Your task to perform on an android device: Clear the shopping cart on walmart.com. Search for "jbl flip 4" on walmart.com, select the first entry, and add it to the cart. Image 0: 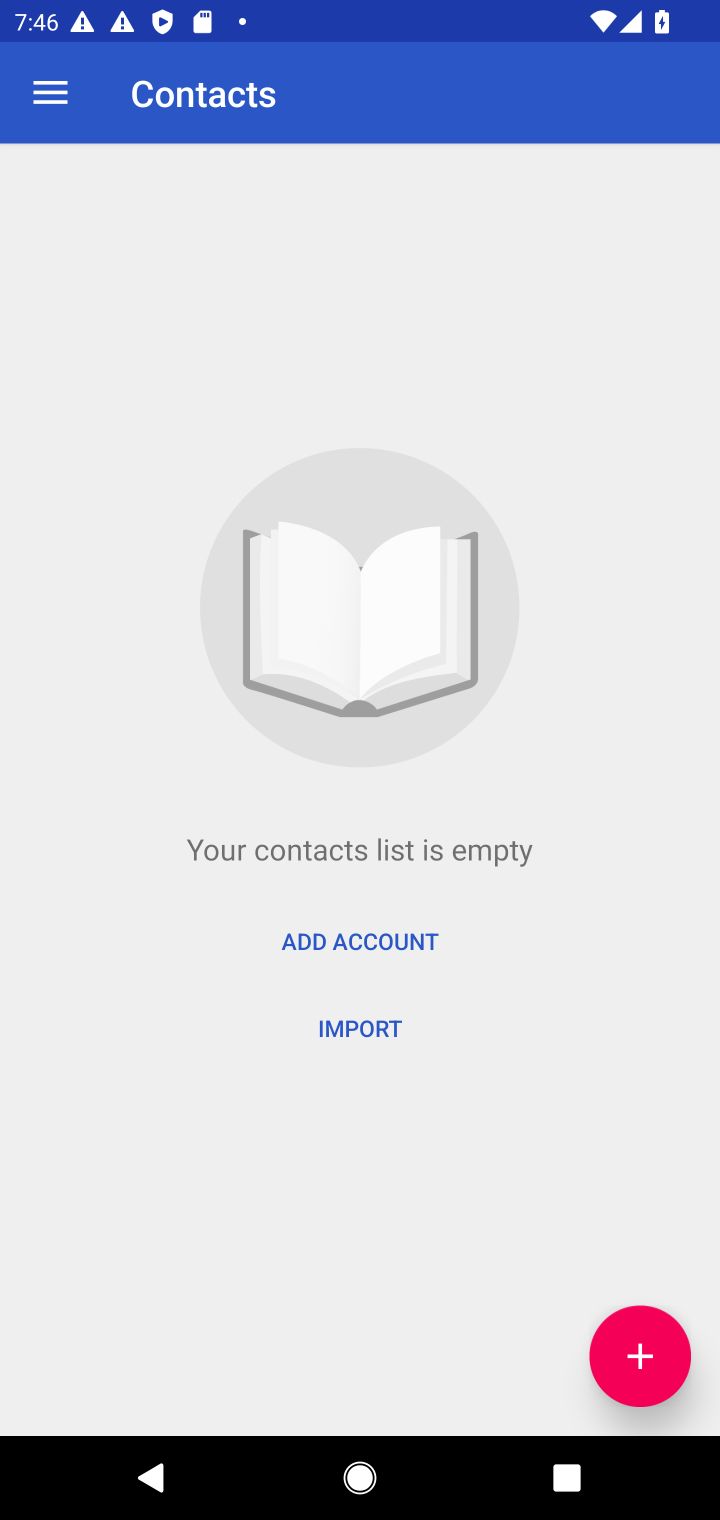
Step 0: press home button
Your task to perform on an android device: Clear the shopping cart on walmart.com. Search for "jbl flip 4" on walmart.com, select the first entry, and add it to the cart. Image 1: 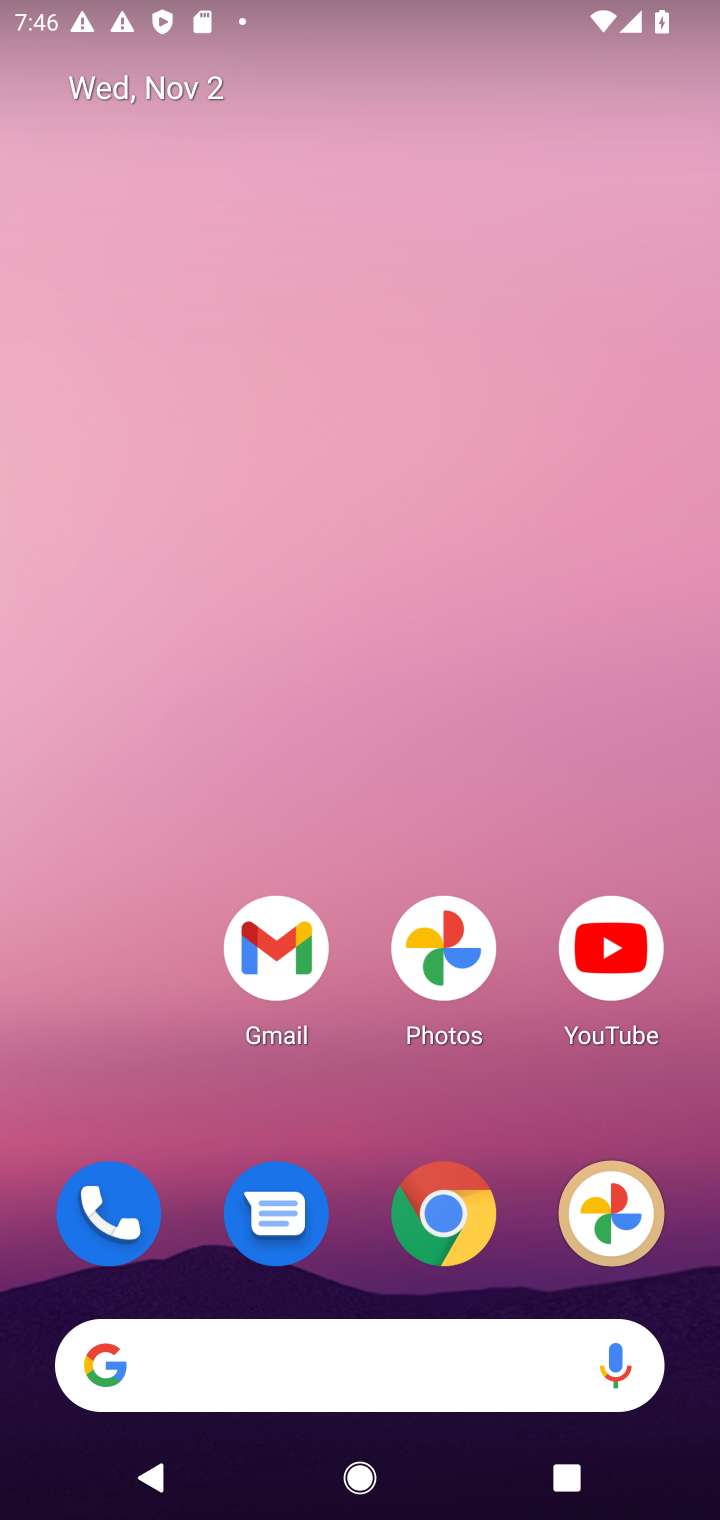
Step 1: click (451, 1230)
Your task to perform on an android device: Clear the shopping cart on walmart.com. Search for "jbl flip 4" on walmart.com, select the first entry, and add it to the cart. Image 2: 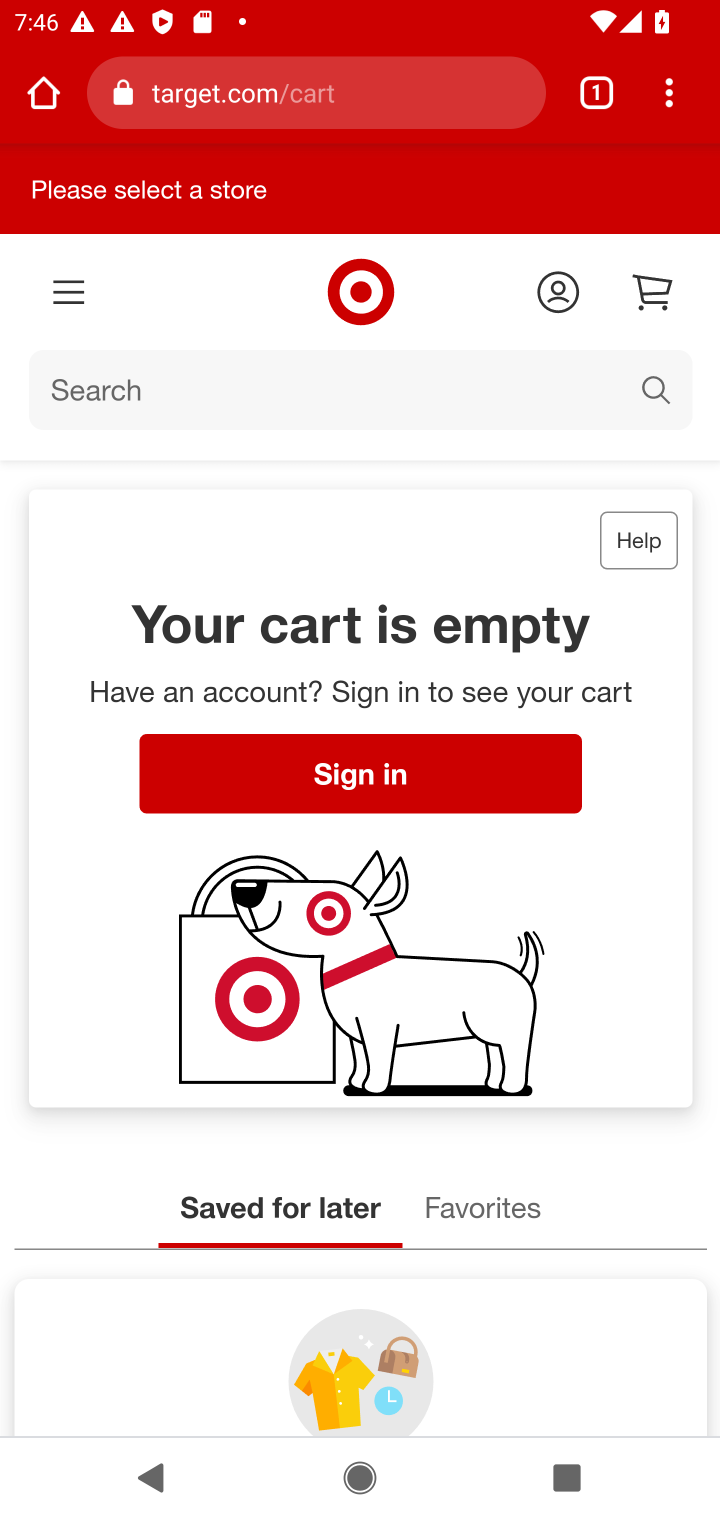
Step 2: click (230, 107)
Your task to perform on an android device: Clear the shopping cart on walmart.com. Search for "jbl flip 4" on walmart.com, select the first entry, and add it to the cart. Image 3: 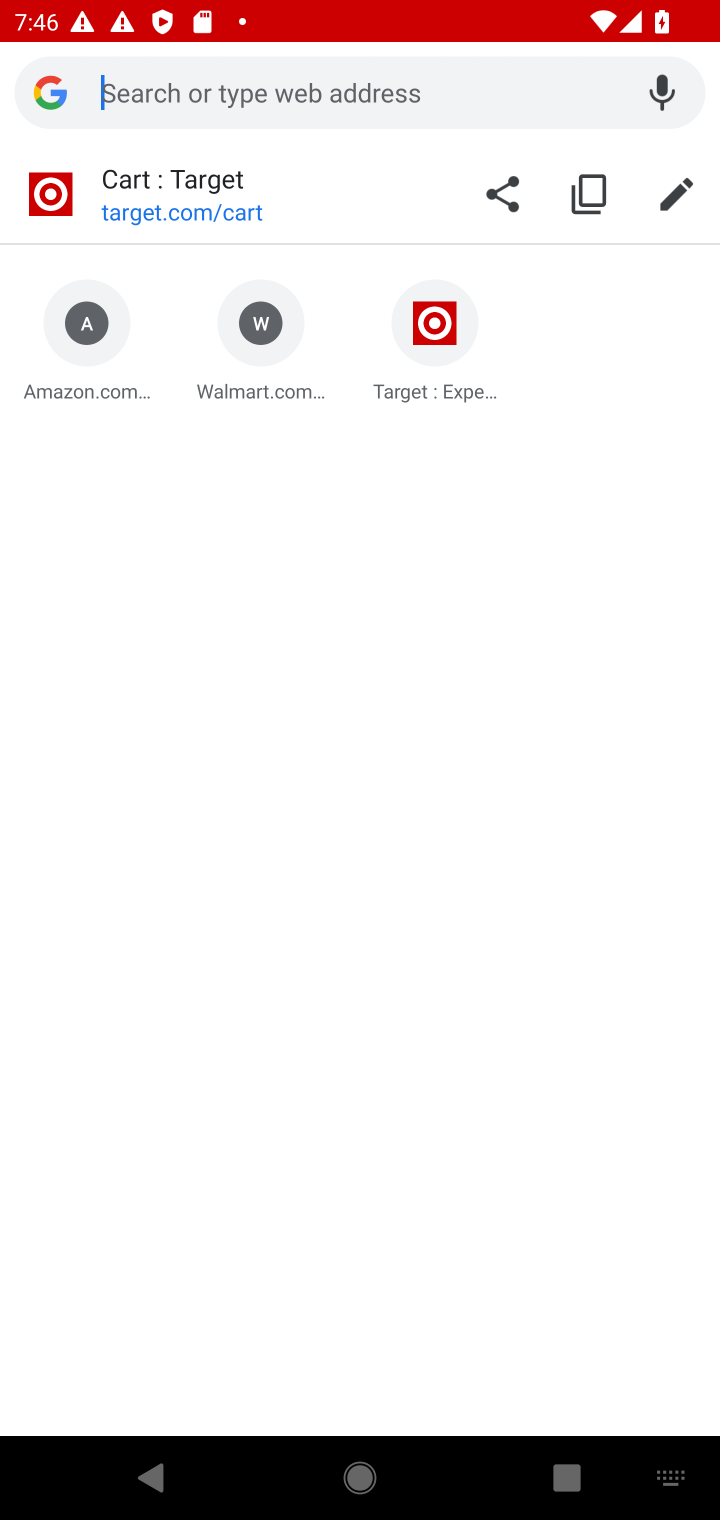
Step 3: type "walmart.com"
Your task to perform on an android device: Clear the shopping cart on walmart.com. Search for "jbl flip 4" on walmart.com, select the first entry, and add it to the cart. Image 4: 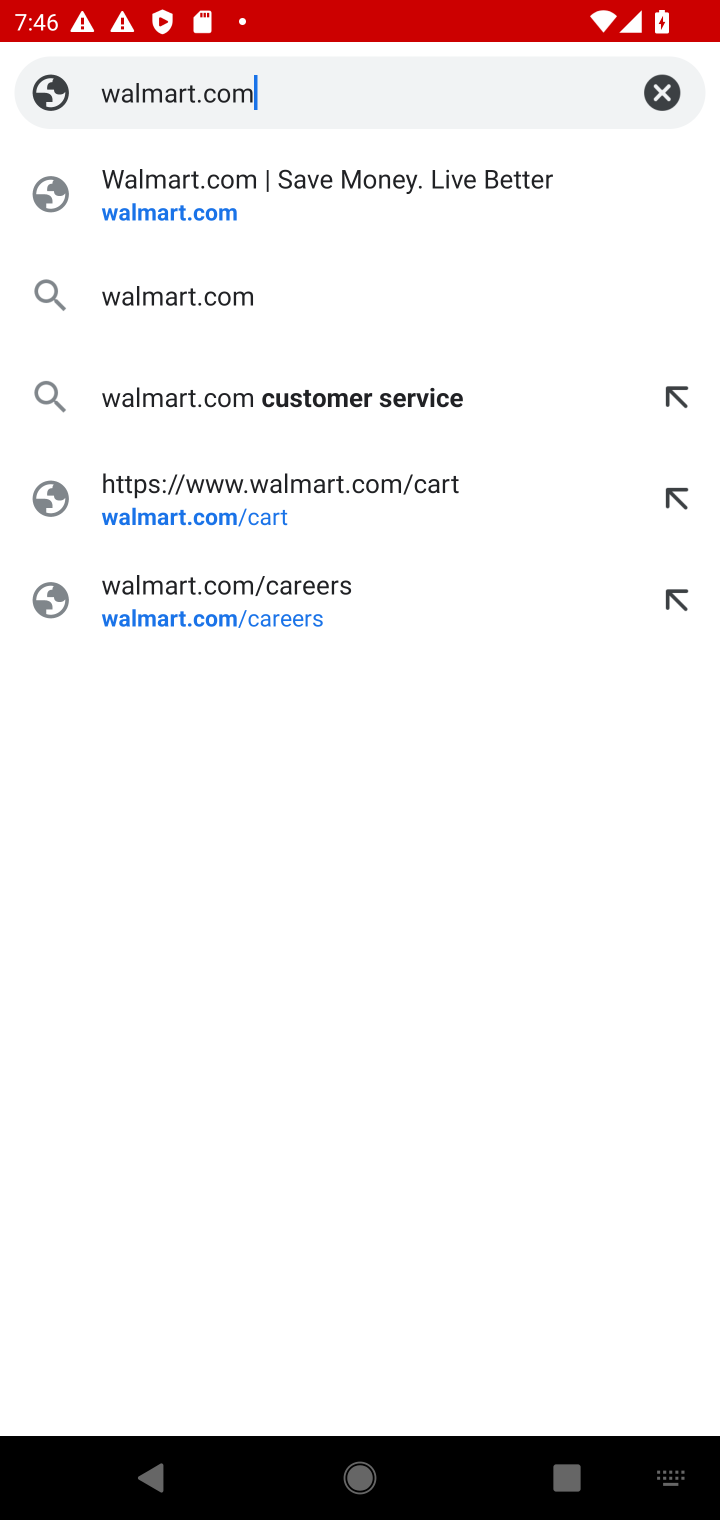
Step 4: click (125, 212)
Your task to perform on an android device: Clear the shopping cart on walmart.com. Search for "jbl flip 4" on walmart.com, select the first entry, and add it to the cart. Image 5: 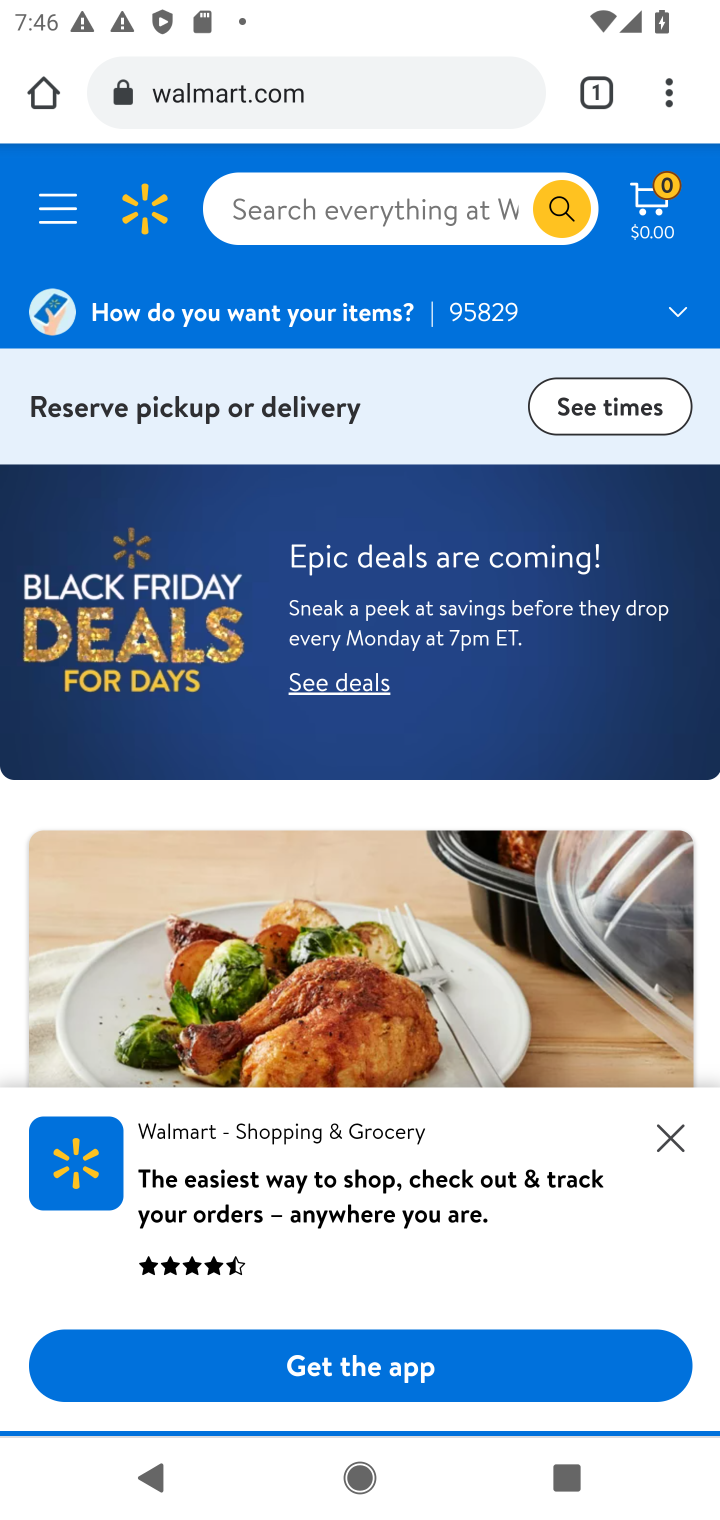
Step 5: click (661, 208)
Your task to perform on an android device: Clear the shopping cart on walmart.com. Search for "jbl flip 4" on walmart.com, select the first entry, and add it to the cart. Image 6: 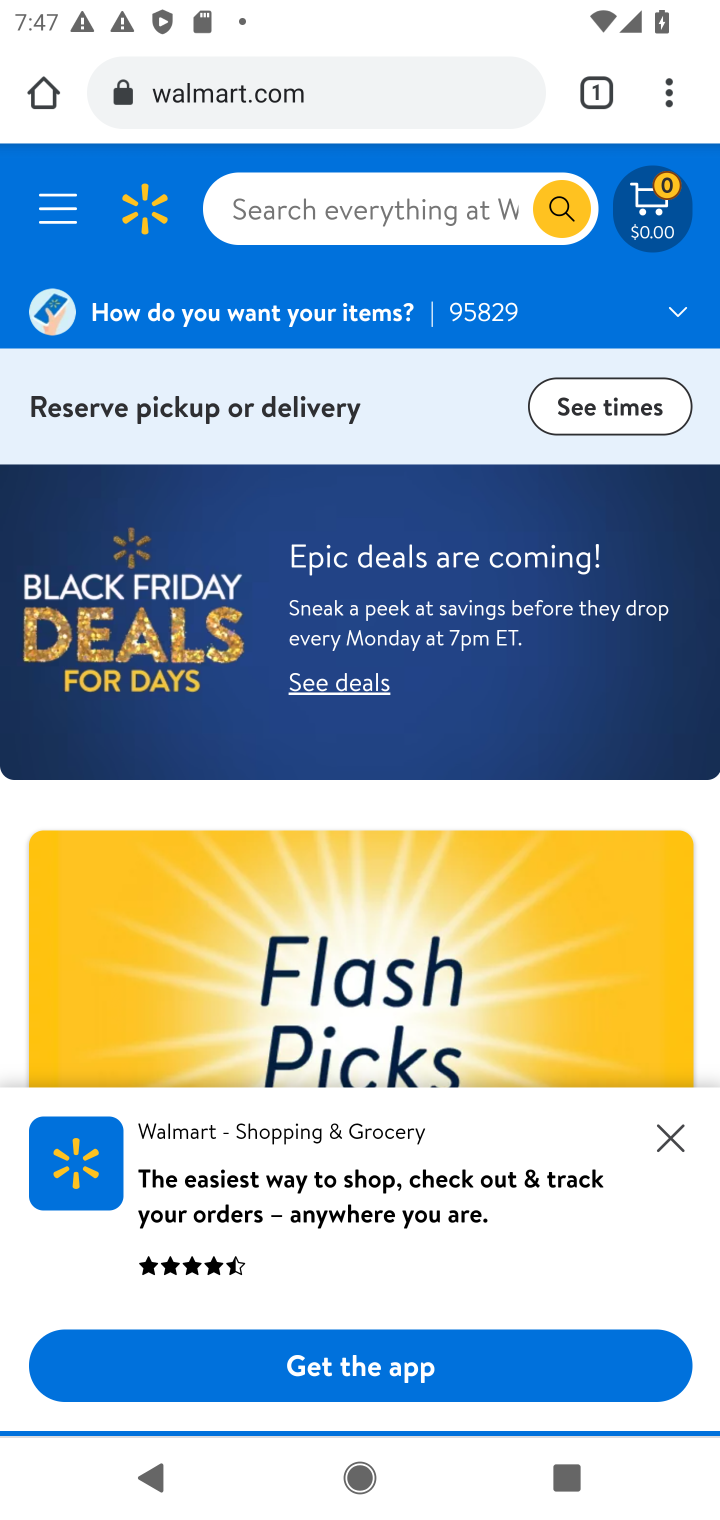
Step 6: click (657, 223)
Your task to perform on an android device: Clear the shopping cart on walmart.com. Search for "jbl flip 4" on walmart.com, select the first entry, and add it to the cart. Image 7: 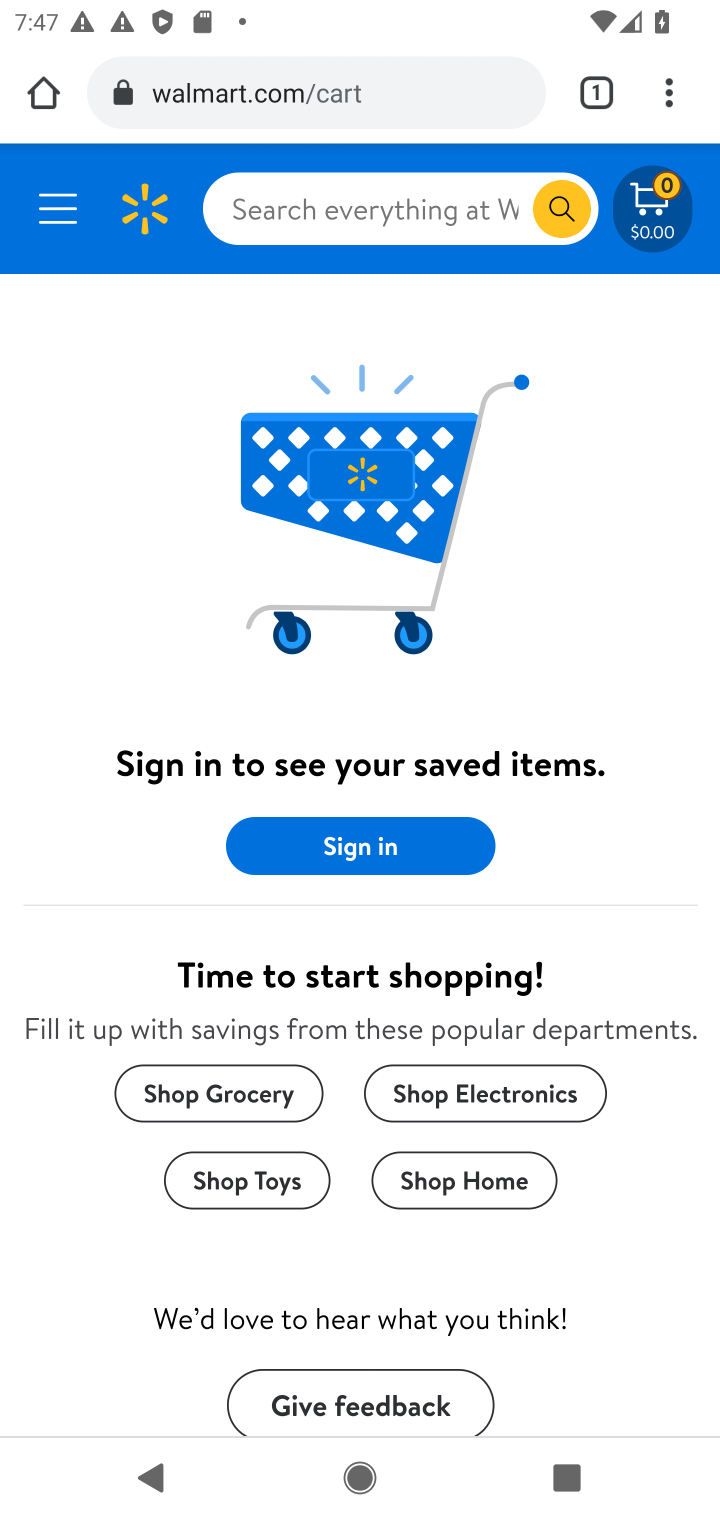
Step 7: click (345, 222)
Your task to perform on an android device: Clear the shopping cart on walmart.com. Search for "jbl flip 4" on walmart.com, select the first entry, and add it to the cart. Image 8: 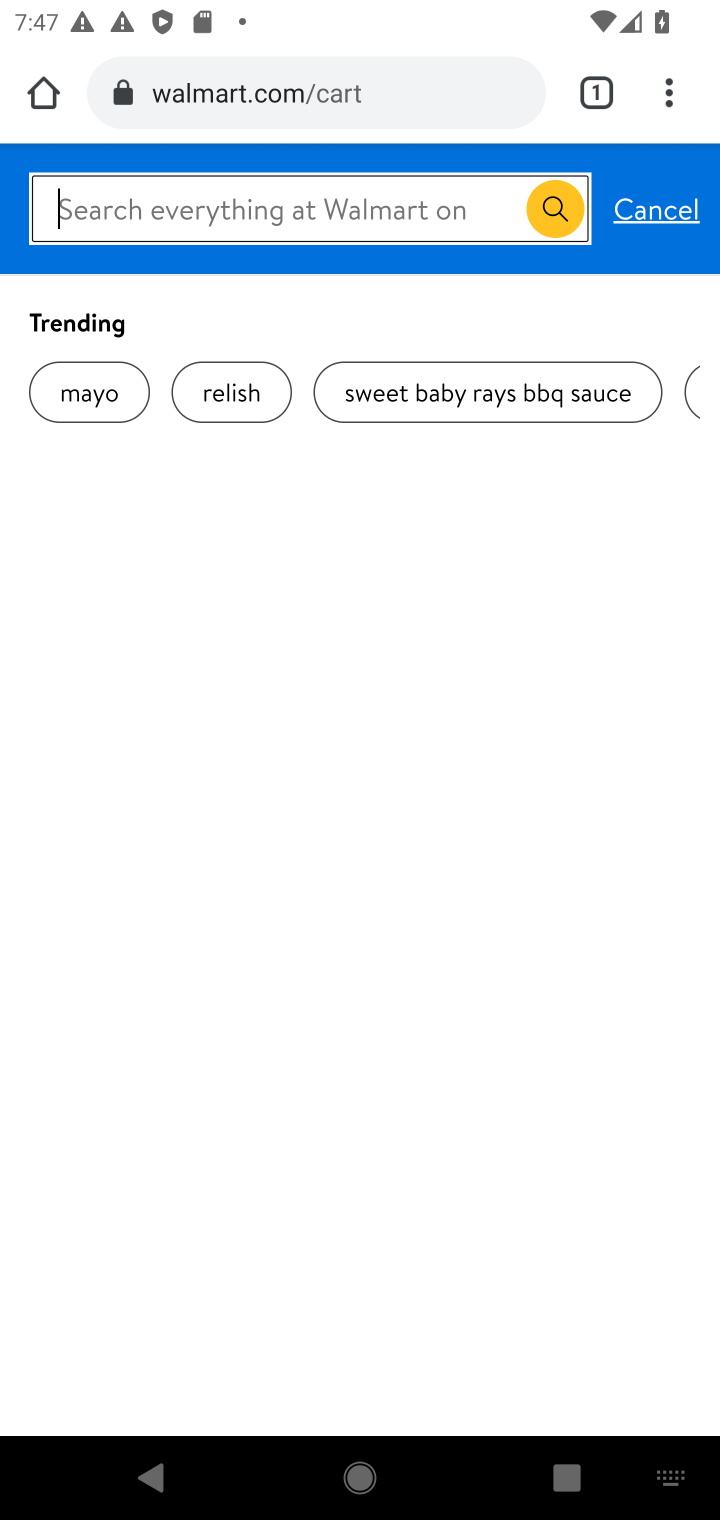
Step 8: type "jbl flip 4"
Your task to perform on an android device: Clear the shopping cart on walmart.com. Search for "jbl flip 4" on walmart.com, select the first entry, and add it to the cart. Image 9: 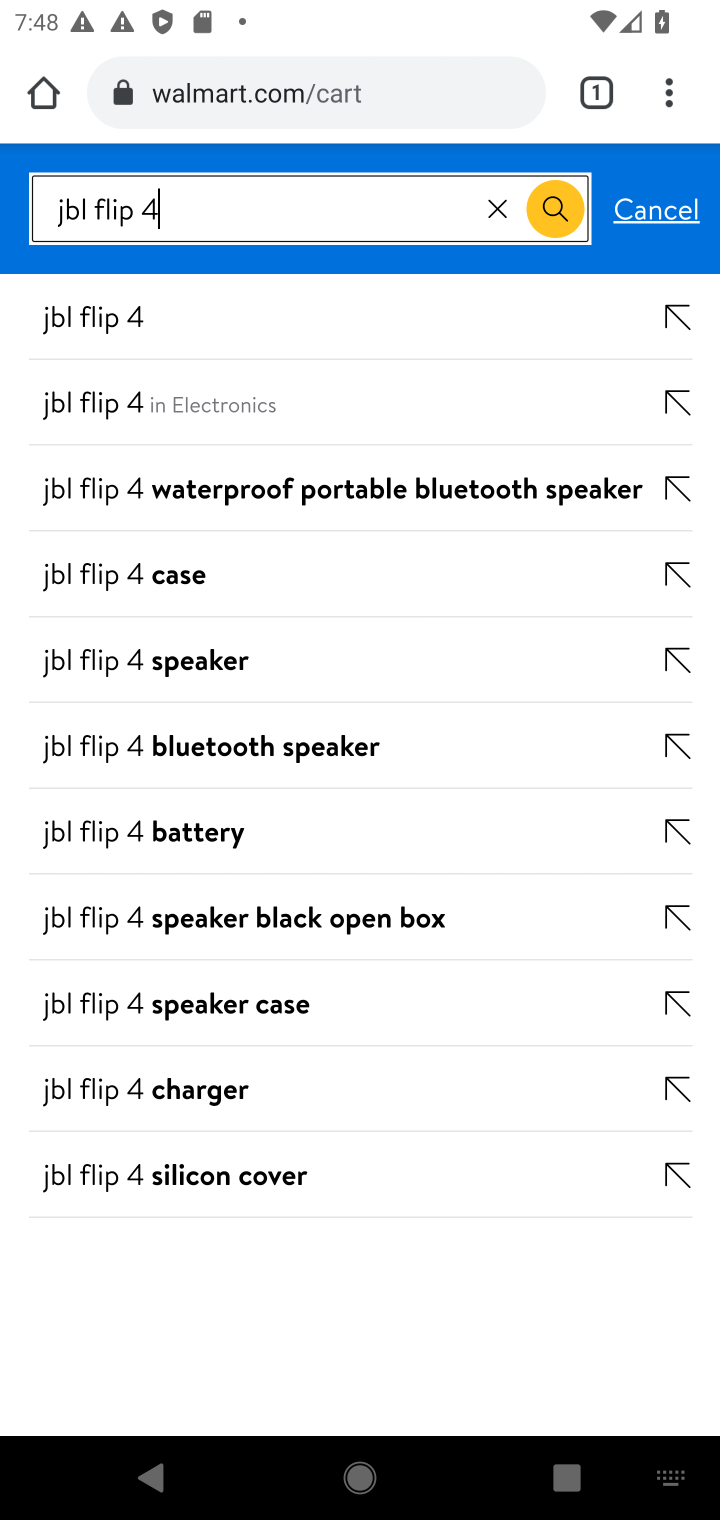
Step 9: click (86, 312)
Your task to perform on an android device: Clear the shopping cart on walmart.com. Search for "jbl flip 4" on walmart.com, select the first entry, and add it to the cart. Image 10: 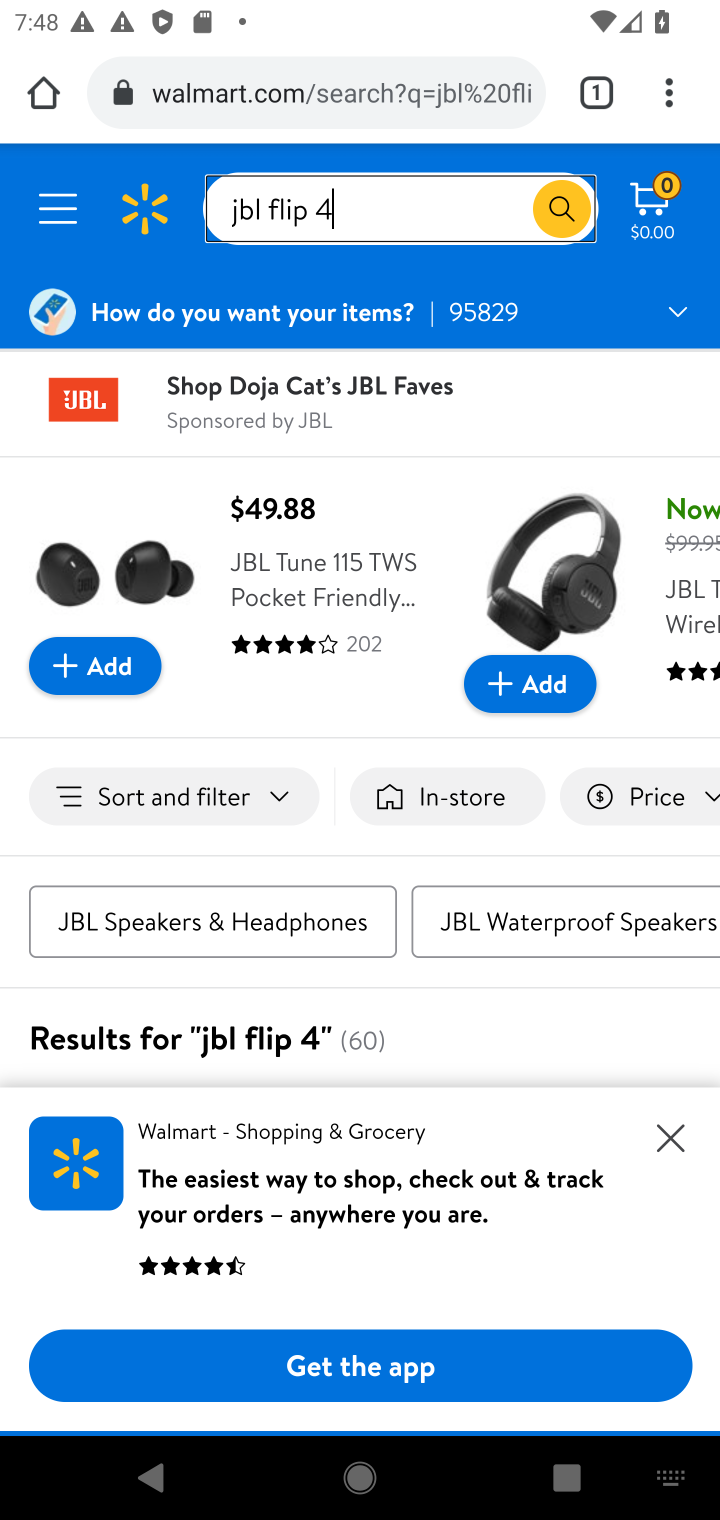
Step 10: drag from (367, 812) to (315, 402)
Your task to perform on an android device: Clear the shopping cart on walmart.com. Search for "jbl flip 4" on walmart.com, select the first entry, and add it to the cart. Image 11: 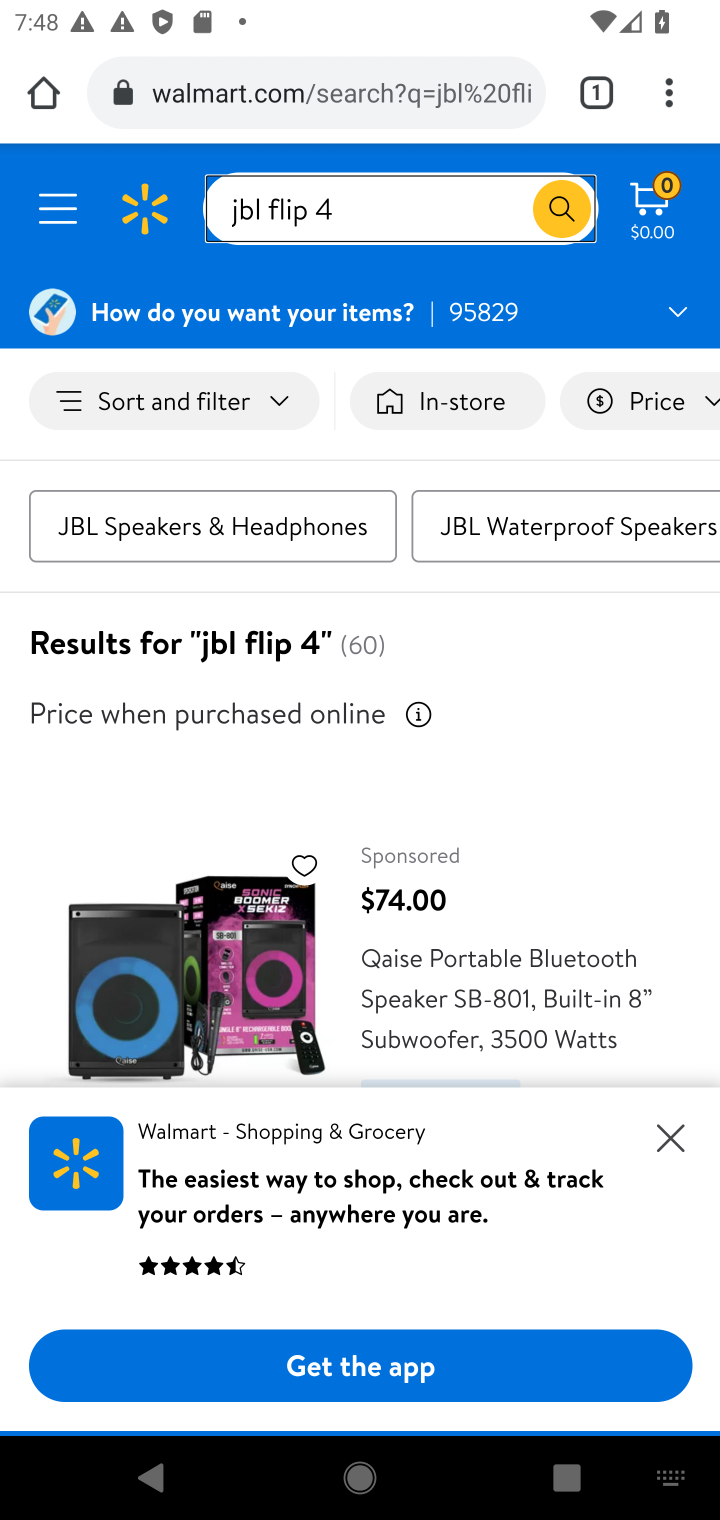
Step 11: drag from (350, 920) to (352, 647)
Your task to perform on an android device: Clear the shopping cart on walmart.com. Search for "jbl flip 4" on walmart.com, select the first entry, and add it to the cart. Image 12: 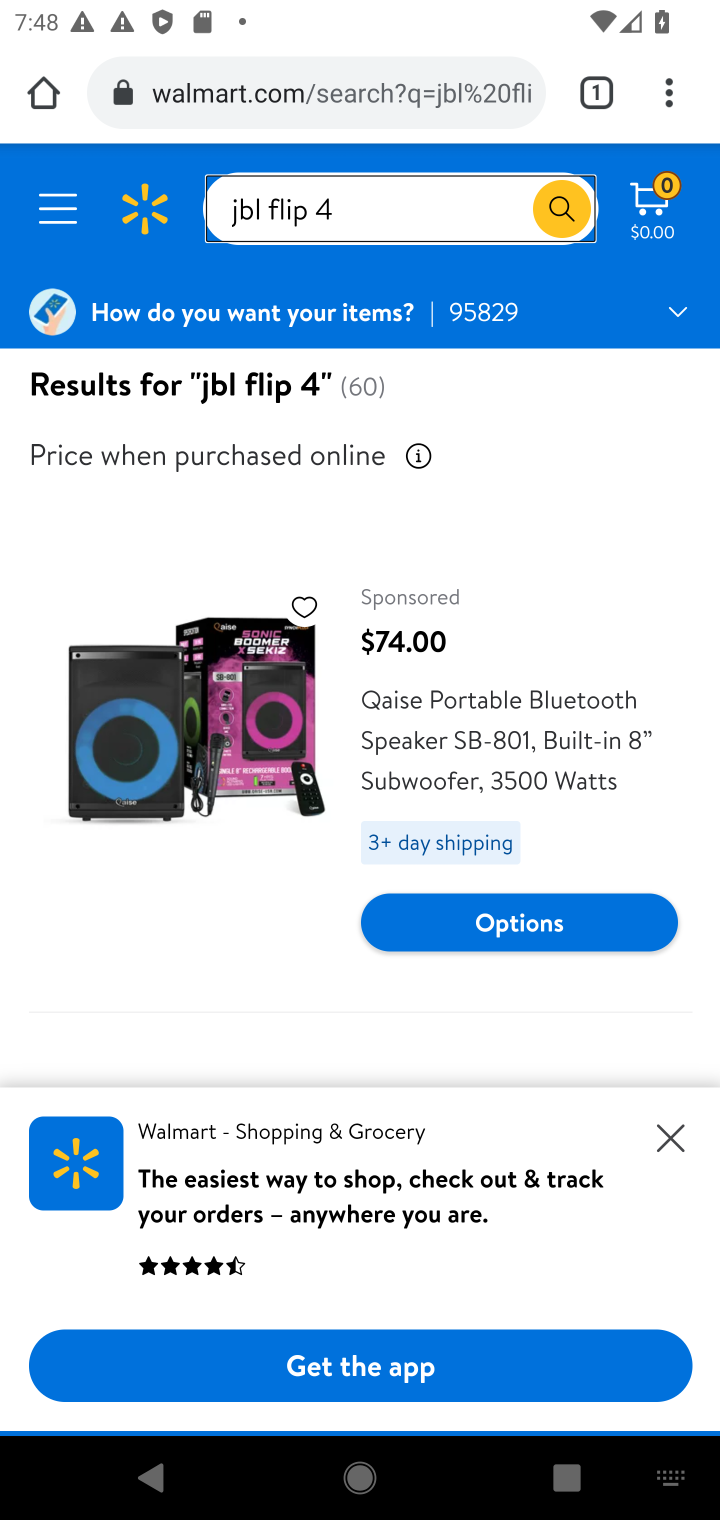
Step 12: click (357, 646)
Your task to perform on an android device: Clear the shopping cart on walmart.com. Search for "jbl flip 4" on walmart.com, select the first entry, and add it to the cart. Image 13: 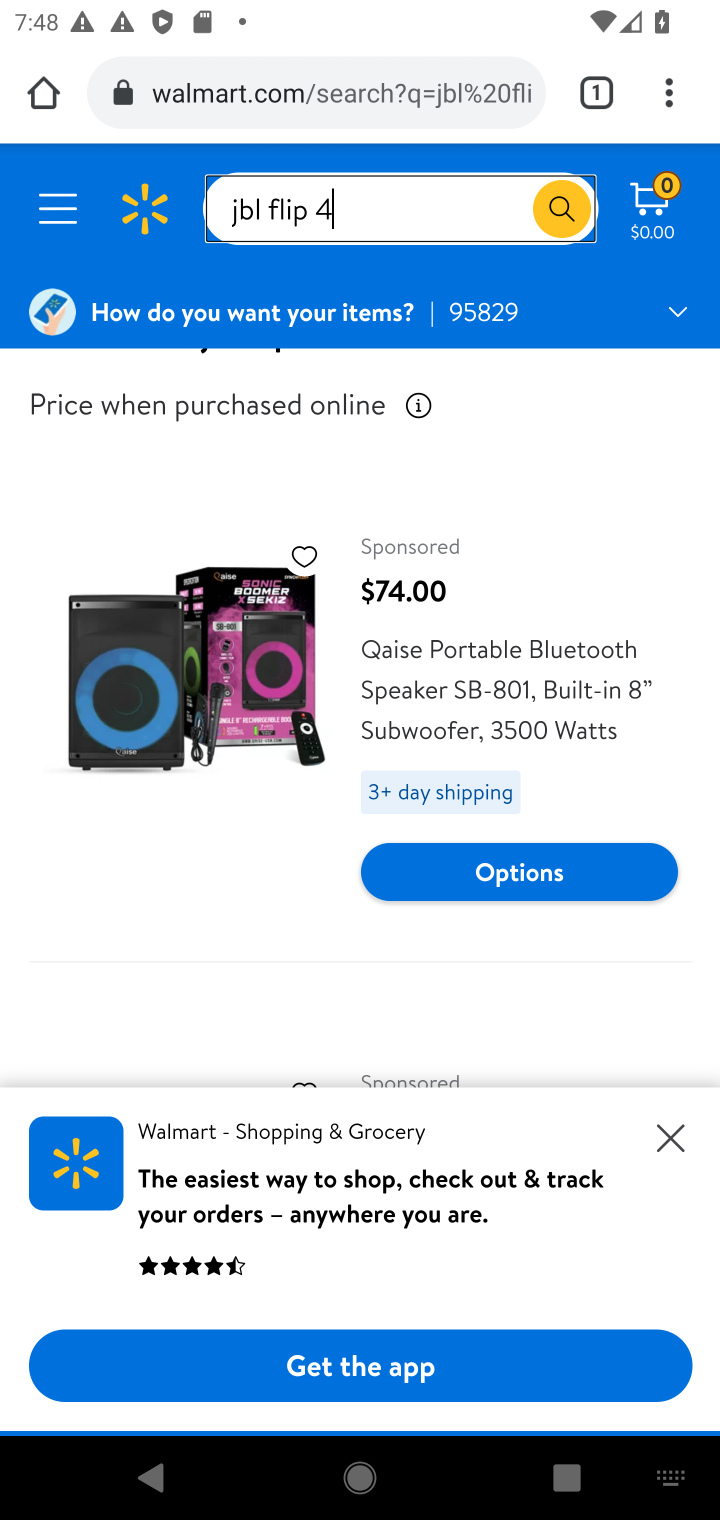
Step 13: task complete